Your task to perform on an android device: open a bookmark in the chrome app Image 0: 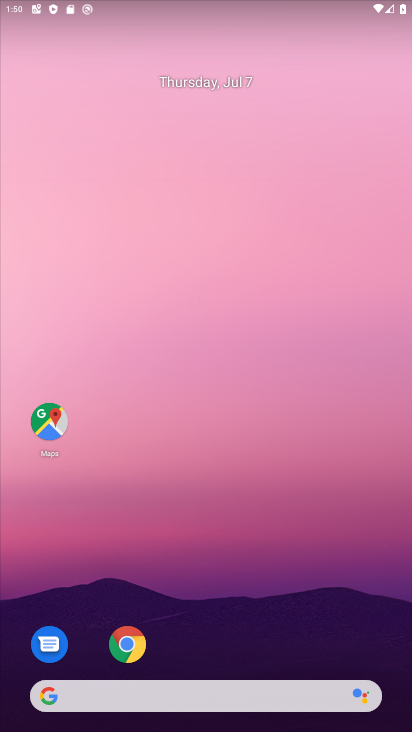
Step 0: click (127, 655)
Your task to perform on an android device: open a bookmark in the chrome app Image 1: 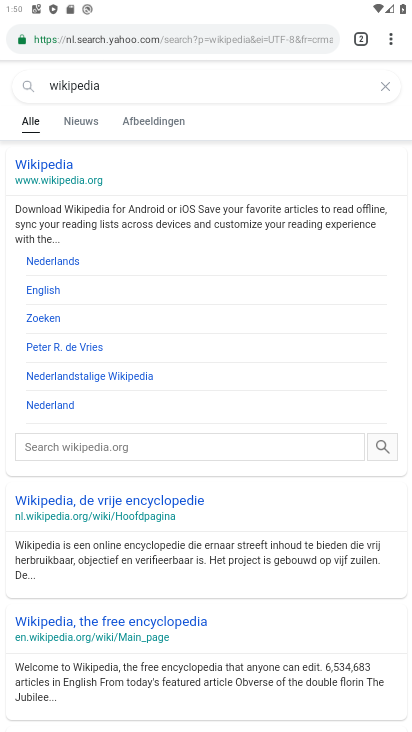
Step 1: drag from (394, 37) to (260, 149)
Your task to perform on an android device: open a bookmark in the chrome app Image 2: 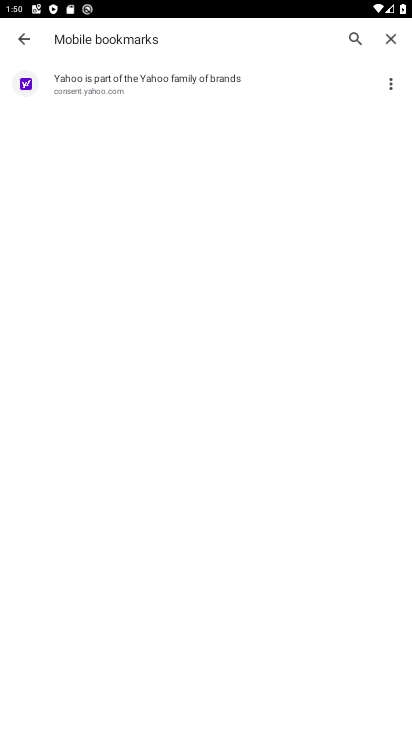
Step 2: click (220, 97)
Your task to perform on an android device: open a bookmark in the chrome app Image 3: 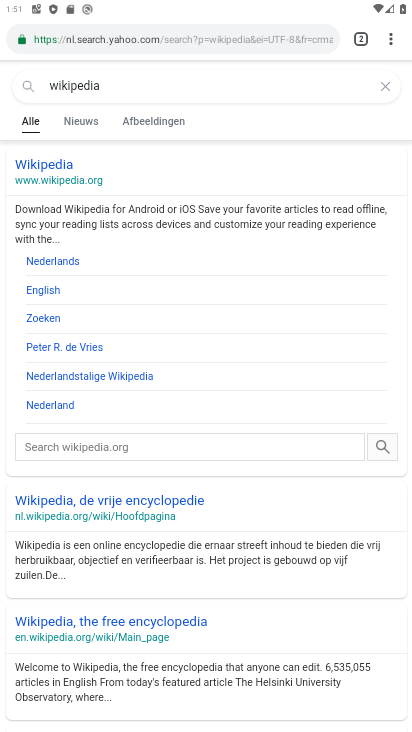
Step 3: task complete